Your task to perform on an android device: open the mobile data screen to see how much data has been used Image 0: 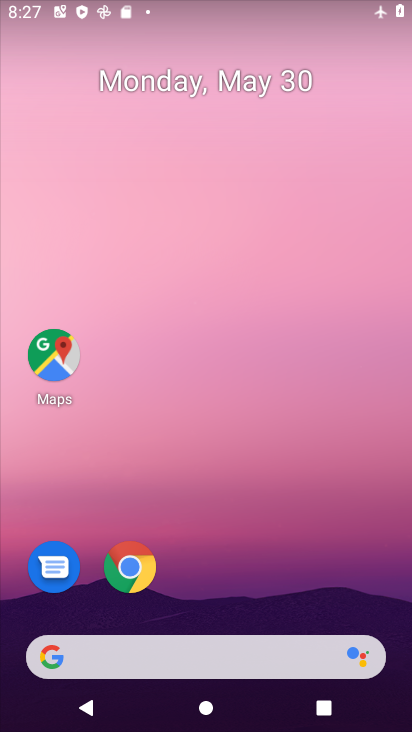
Step 0: drag from (362, 594) to (157, 10)
Your task to perform on an android device: open the mobile data screen to see how much data has been used Image 1: 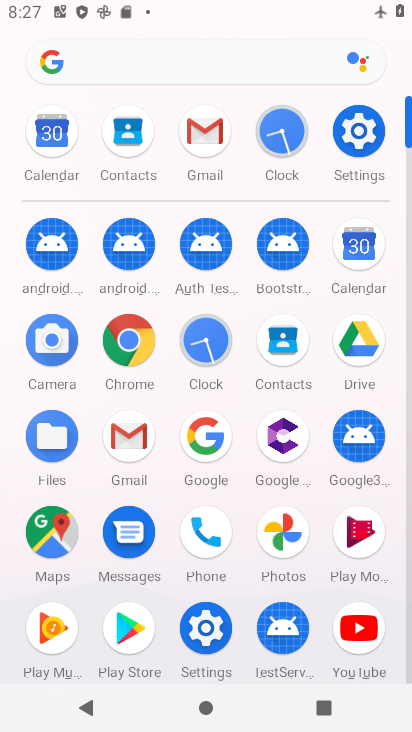
Step 1: click (375, 261)
Your task to perform on an android device: open the mobile data screen to see how much data has been used Image 2: 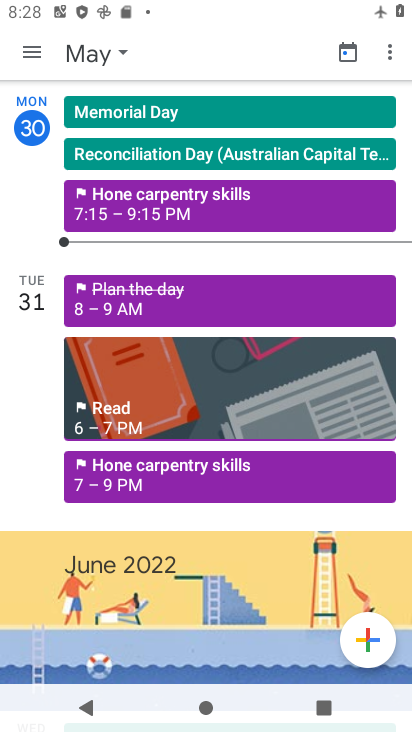
Step 2: press home button
Your task to perform on an android device: open the mobile data screen to see how much data has been used Image 3: 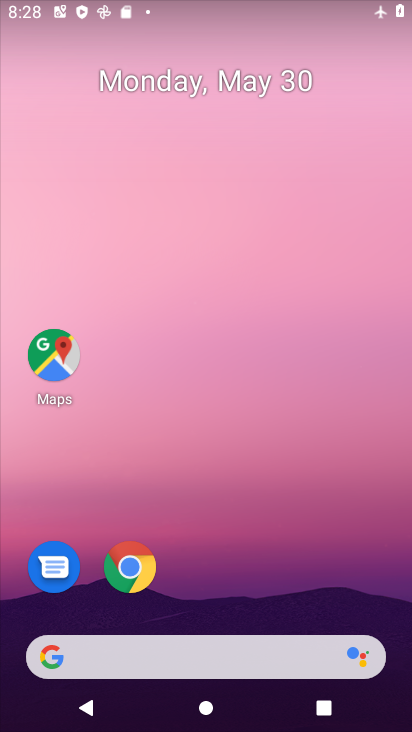
Step 3: drag from (315, 531) to (290, 57)
Your task to perform on an android device: open the mobile data screen to see how much data has been used Image 4: 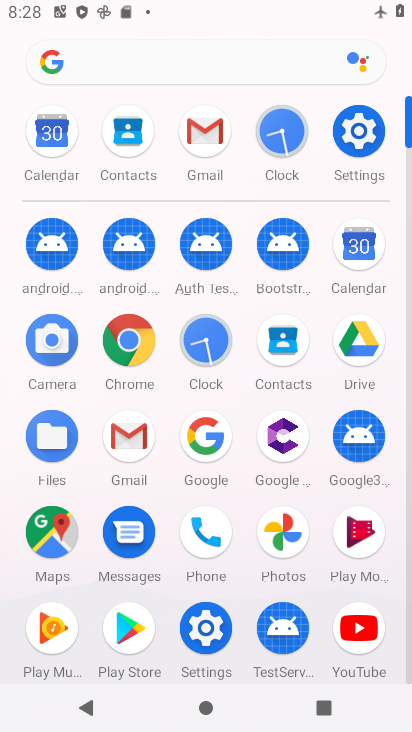
Step 4: click (340, 160)
Your task to perform on an android device: open the mobile data screen to see how much data has been used Image 5: 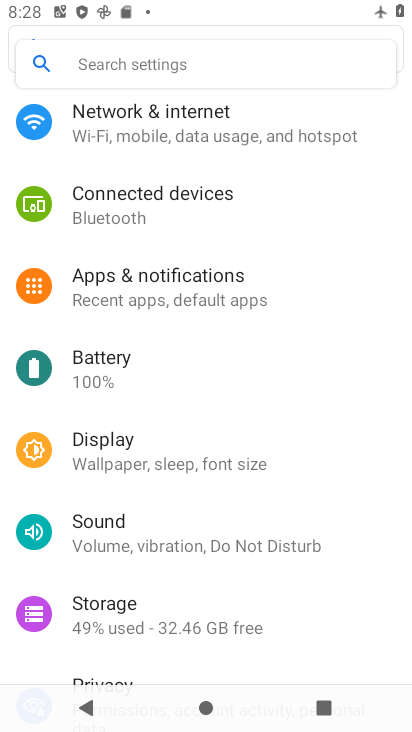
Step 5: click (303, 119)
Your task to perform on an android device: open the mobile data screen to see how much data has been used Image 6: 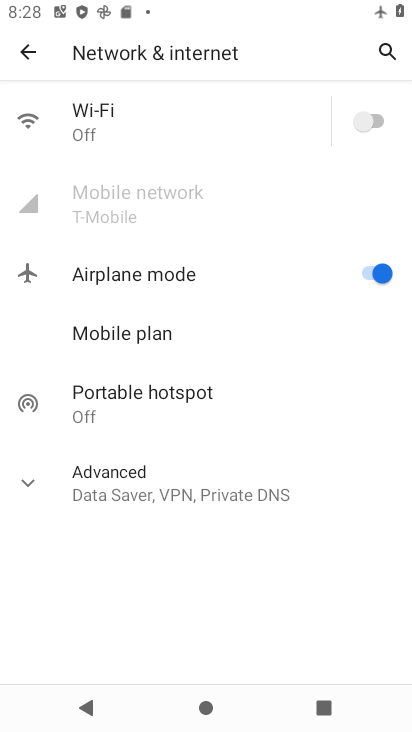
Step 6: click (346, 268)
Your task to perform on an android device: open the mobile data screen to see how much data has been used Image 7: 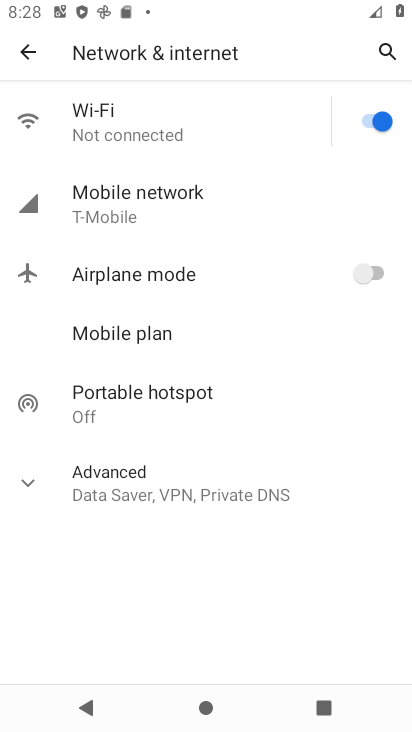
Step 7: click (377, 108)
Your task to perform on an android device: open the mobile data screen to see how much data has been used Image 8: 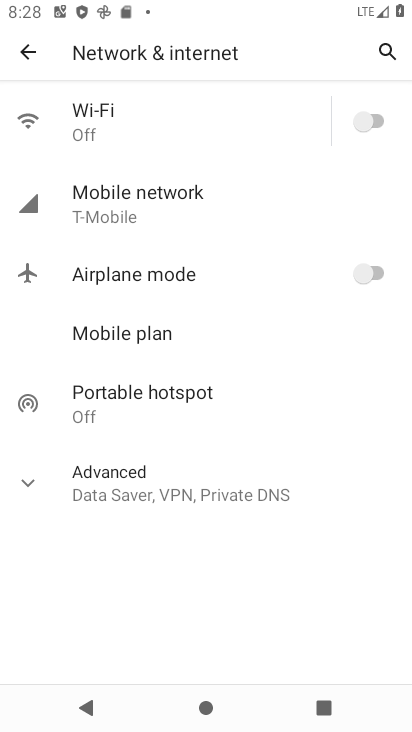
Step 8: click (367, 108)
Your task to perform on an android device: open the mobile data screen to see how much data has been used Image 9: 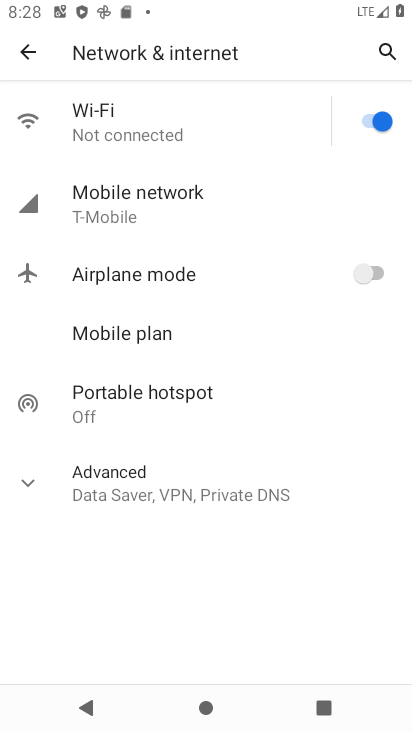
Step 9: task complete